Your task to perform on an android device: Go to eBay Image 0: 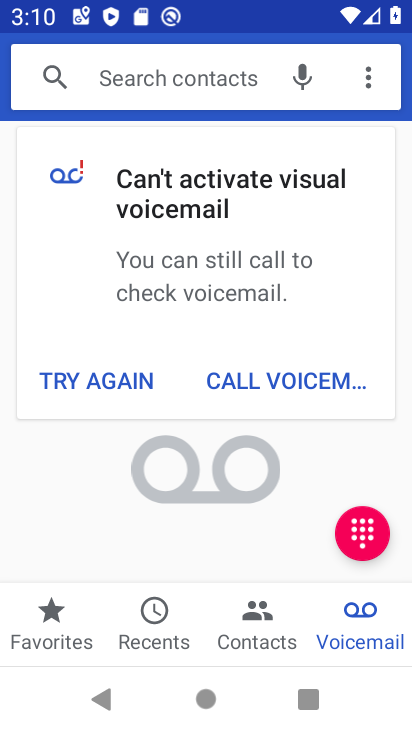
Step 0: press home button
Your task to perform on an android device: Go to eBay Image 1: 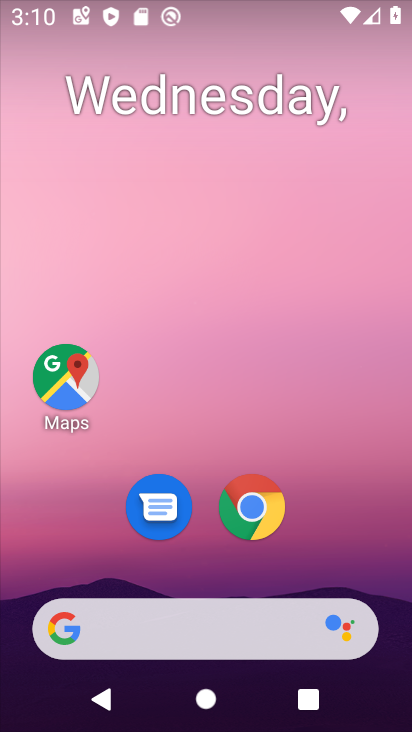
Step 1: click (263, 607)
Your task to perform on an android device: Go to eBay Image 2: 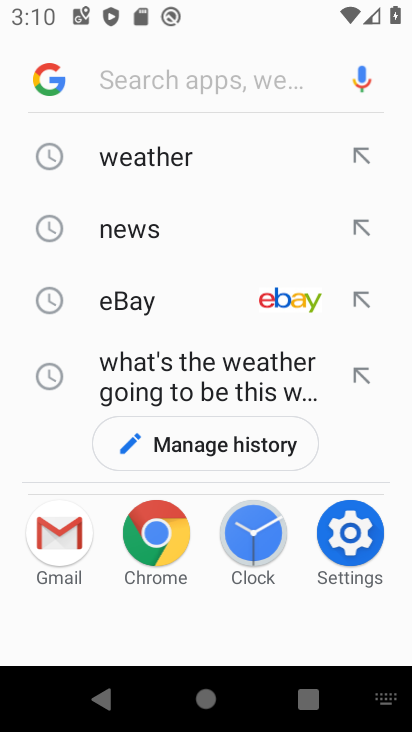
Step 2: click (224, 288)
Your task to perform on an android device: Go to eBay Image 3: 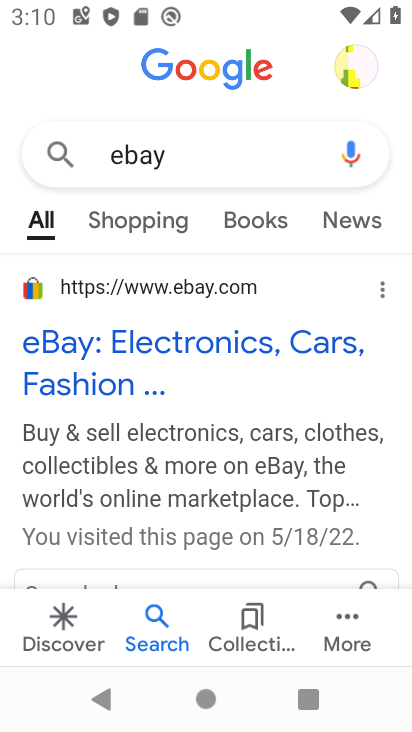
Step 3: press home button
Your task to perform on an android device: Go to eBay Image 4: 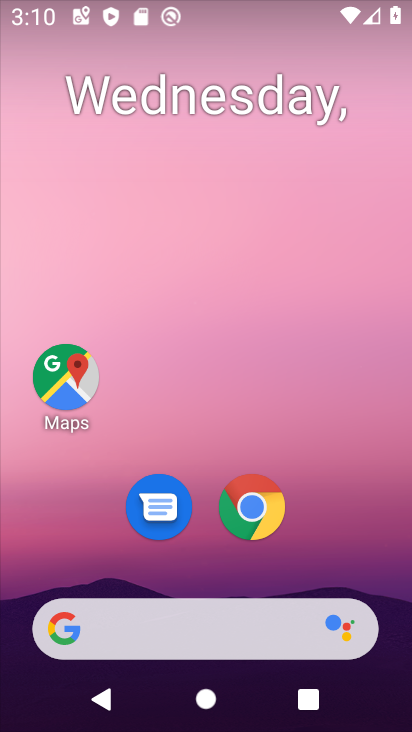
Step 4: click (252, 497)
Your task to perform on an android device: Go to eBay Image 5: 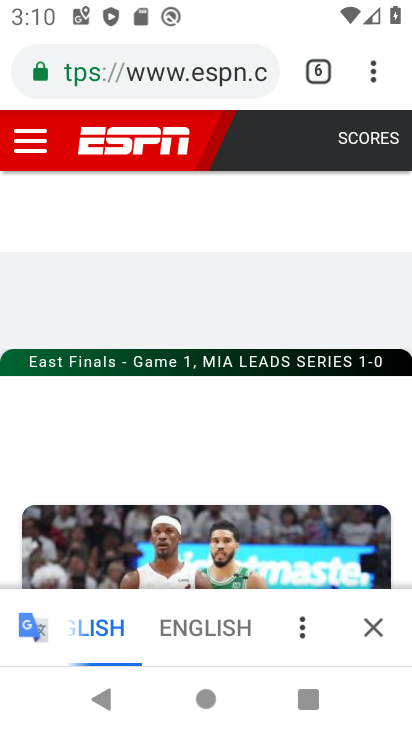
Step 5: click (314, 79)
Your task to perform on an android device: Go to eBay Image 6: 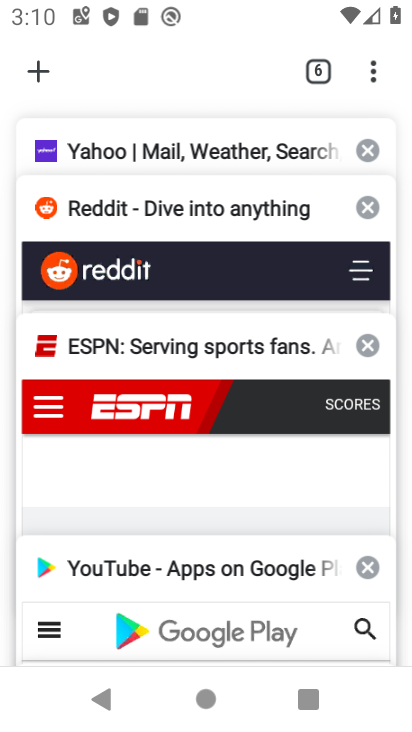
Step 6: drag from (147, 144) to (147, 371)
Your task to perform on an android device: Go to eBay Image 7: 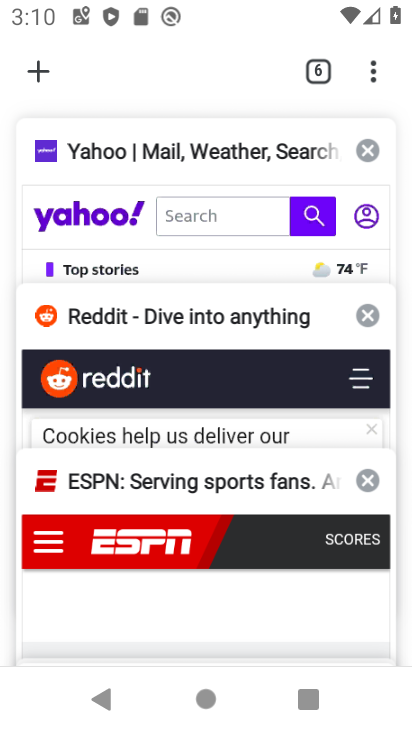
Step 7: drag from (158, 183) to (163, 443)
Your task to perform on an android device: Go to eBay Image 8: 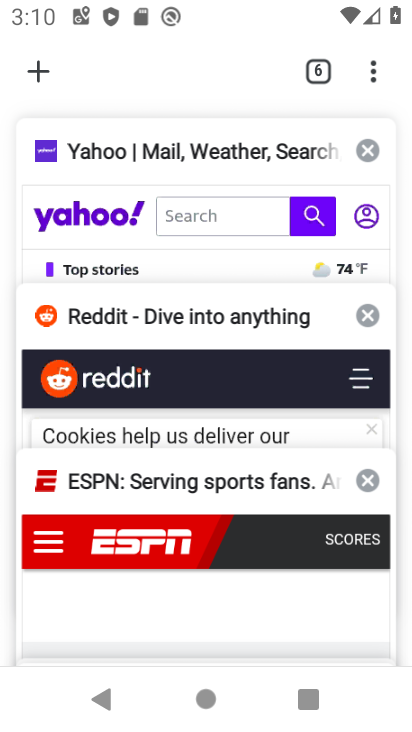
Step 8: drag from (163, 150) to (193, 383)
Your task to perform on an android device: Go to eBay Image 9: 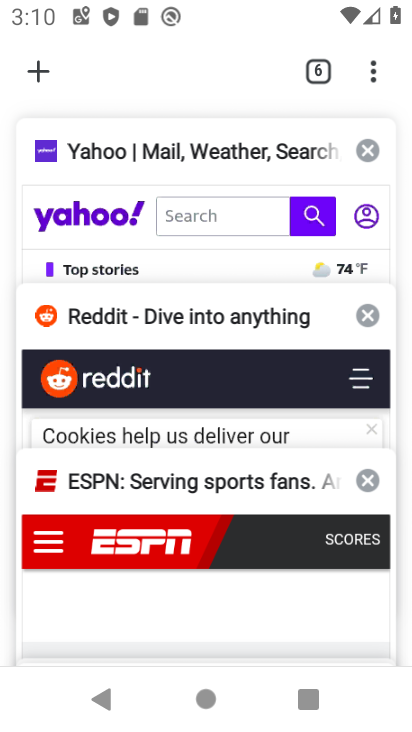
Step 9: drag from (231, 132) to (257, 462)
Your task to perform on an android device: Go to eBay Image 10: 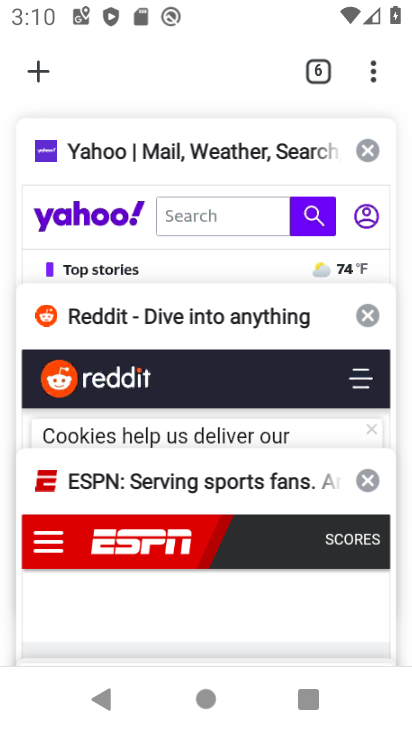
Step 10: drag from (259, 472) to (258, 85)
Your task to perform on an android device: Go to eBay Image 11: 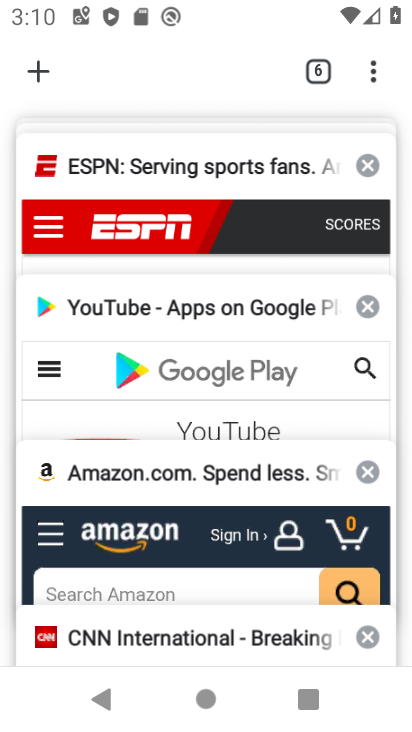
Step 11: drag from (203, 508) to (218, 110)
Your task to perform on an android device: Go to eBay Image 12: 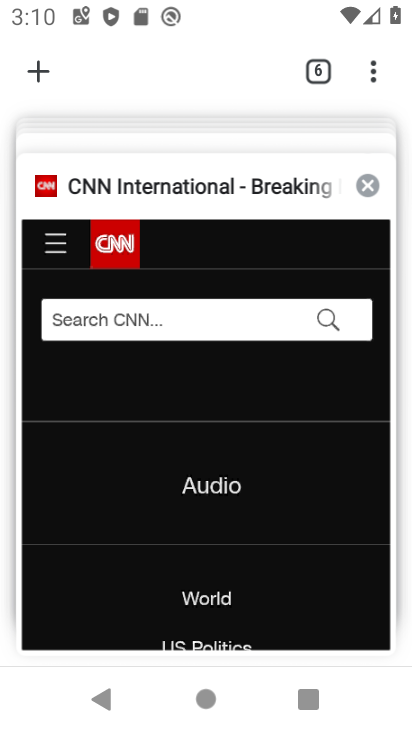
Step 12: drag from (177, 504) to (149, 226)
Your task to perform on an android device: Go to eBay Image 13: 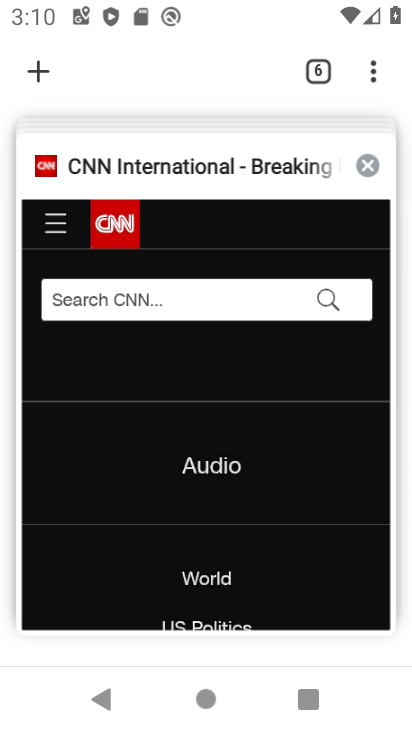
Step 13: click (38, 59)
Your task to perform on an android device: Go to eBay Image 14: 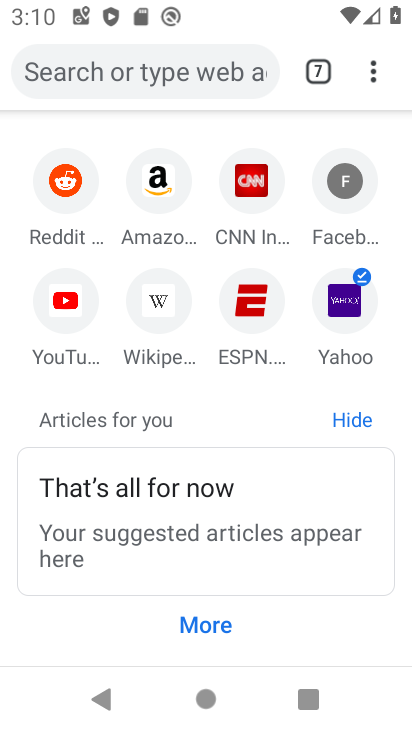
Step 14: click (42, 66)
Your task to perform on an android device: Go to eBay Image 15: 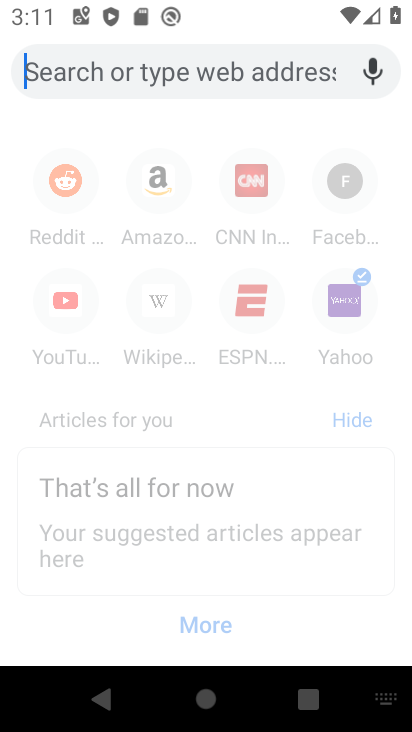
Step 15: type "ebay"
Your task to perform on an android device: Go to eBay Image 16: 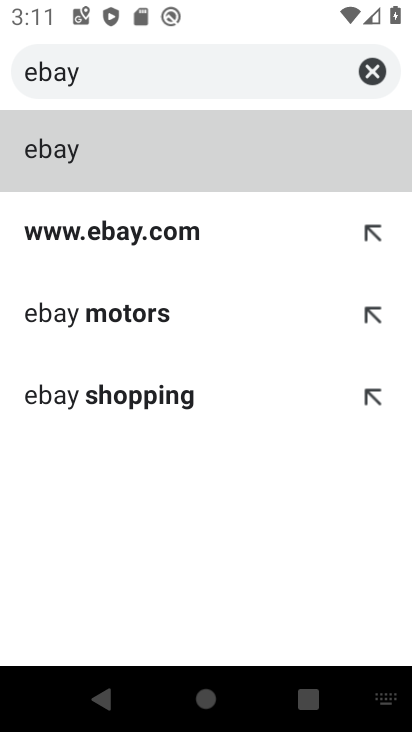
Step 16: click (202, 157)
Your task to perform on an android device: Go to eBay Image 17: 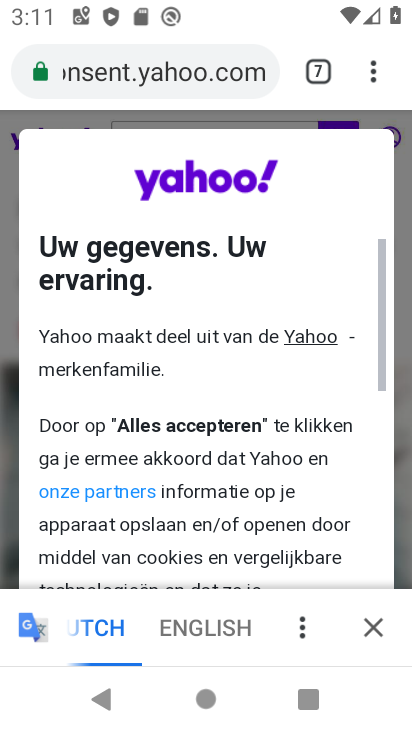
Step 17: click (149, 53)
Your task to perform on an android device: Go to eBay Image 18: 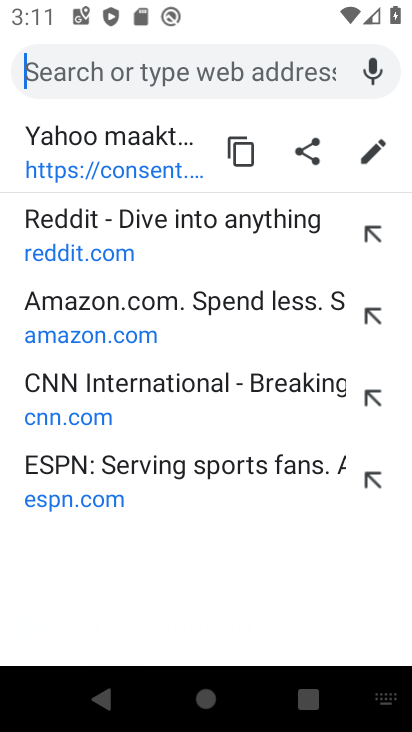
Step 18: type "ebay"
Your task to perform on an android device: Go to eBay Image 19: 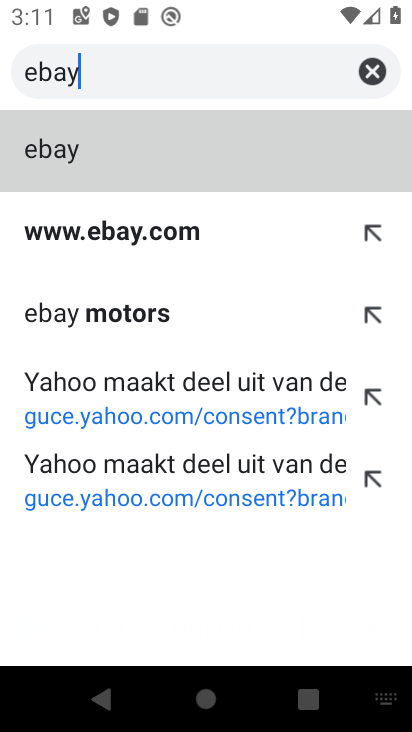
Step 19: click (281, 263)
Your task to perform on an android device: Go to eBay Image 20: 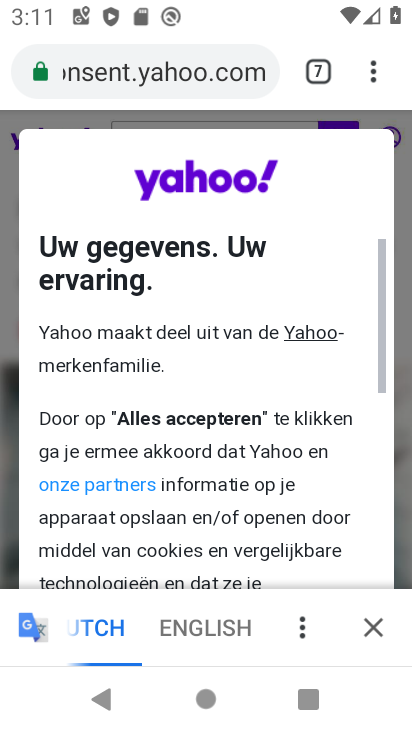
Step 20: press home button
Your task to perform on an android device: Go to eBay Image 21: 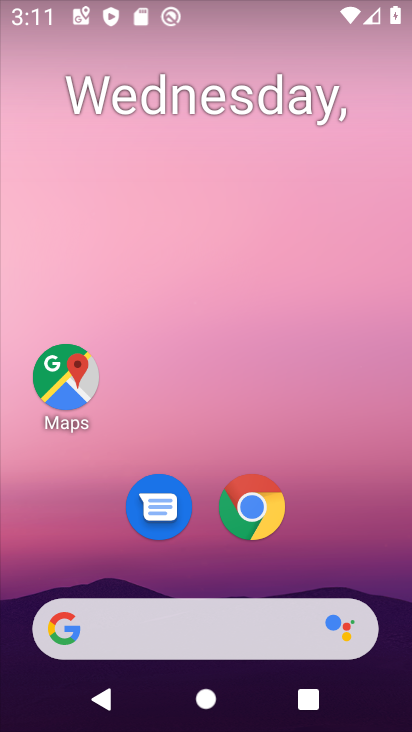
Step 21: click (278, 635)
Your task to perform on an android device: Go to eBay Image 22: 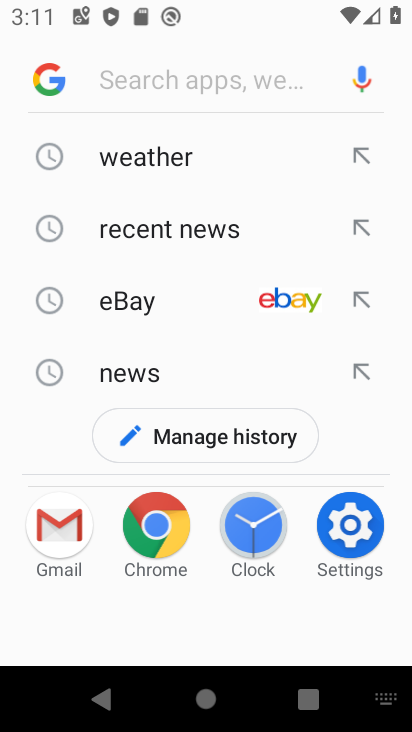
Step 22: click (101, 298)
Your task to perform on an android device: Go to eBay Image 23: 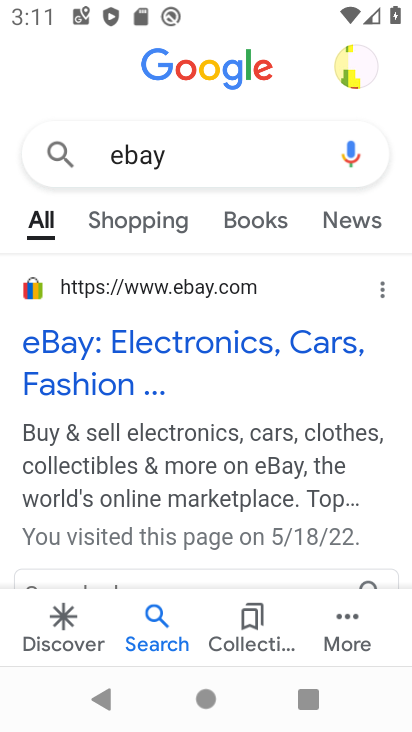
Step 23: task complete